Your task to perform on an android device: Go to Yahoo.com Image 0: 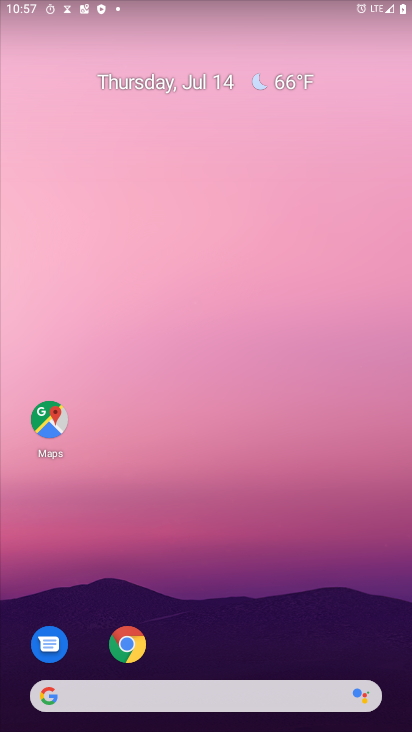
Step 0: drag from (260, 681) to (147, 118)
Your task to perform on an android device: Go to Yahoo.com Image 1: 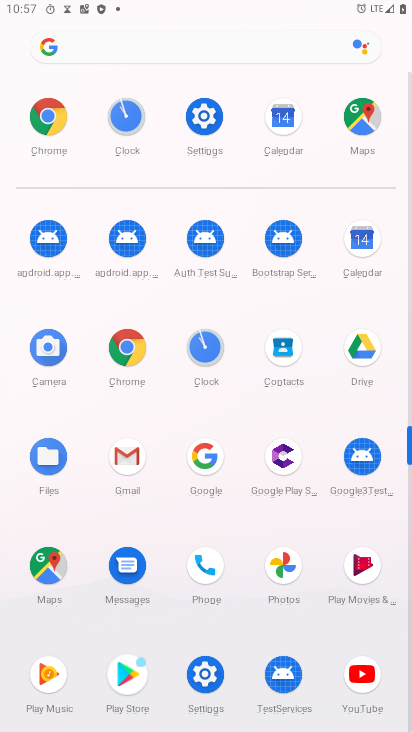
Step 1: click (46, 111)
Your task to perform on an android device: Go to Yahoo.com Image 2: 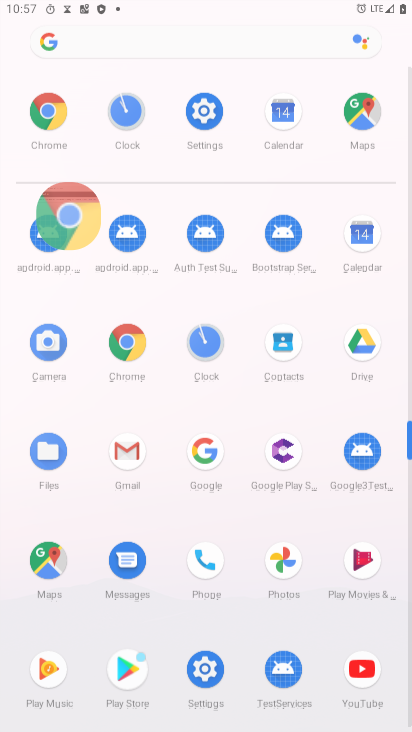
Step 2: click (45, 110)
Your task to perform on an android device: Go to Yahoo.com Image 3: 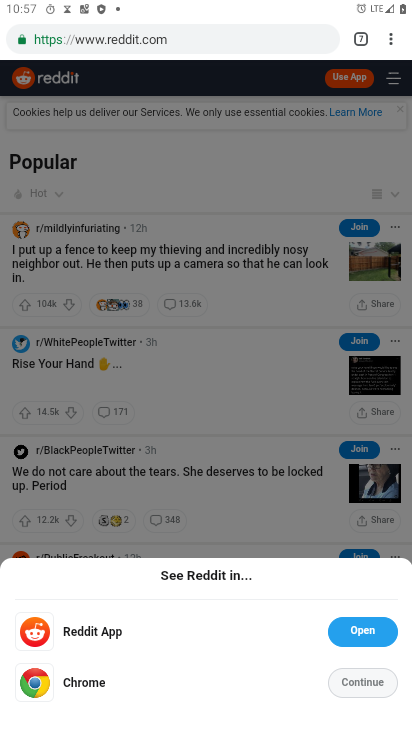
Step 3: press back button
Your task to perform on an android device: Go to Yahoo.com Image 4: 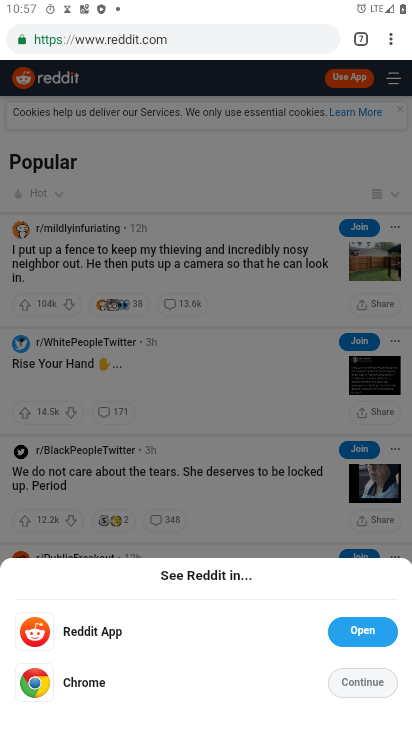
Step 4: press back button
Your task to perform on an android device: Go to Yahoo.com Image 5: 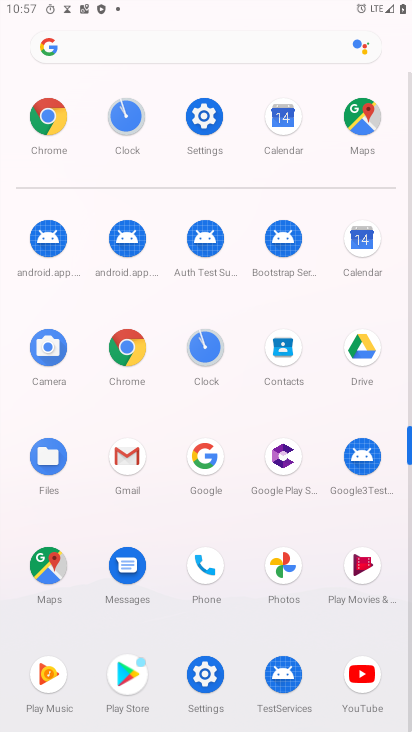
Step 5: click (49, 134)
Your task to perform on an android device: Go to Yahoo.com Image 6: 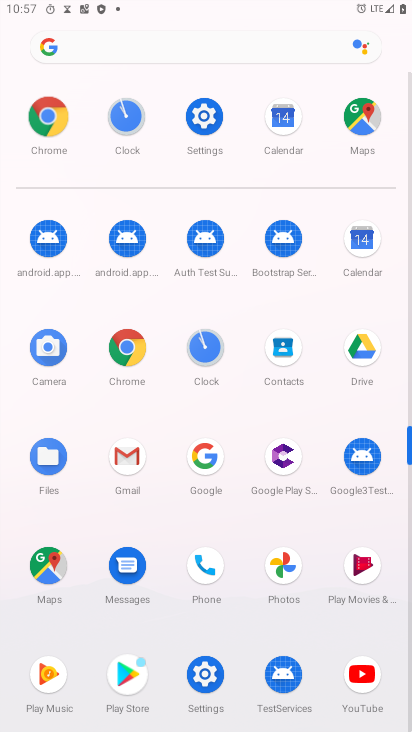
Step 6: click (52, 131)
Your task to perform on an android device: Go to Yahoo.com Image 7: 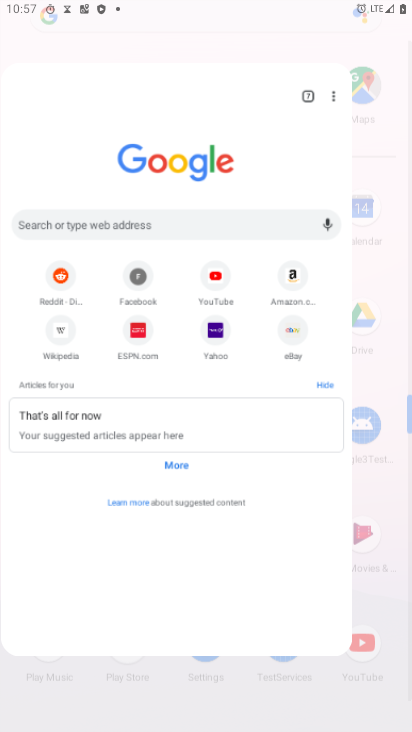
Step 7: click (52, 131)
Your task to perform on an android device: Go to Yahoo.com Image 8: 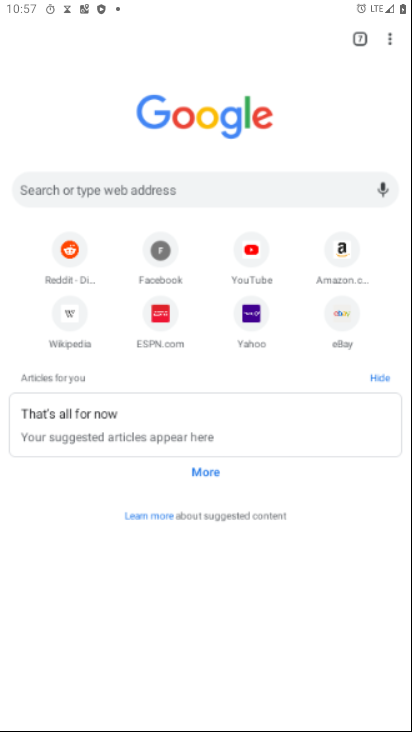
Step 8: click (52, 131)
Your task to perform on an android device: Go to Yahoo.com Image 9: 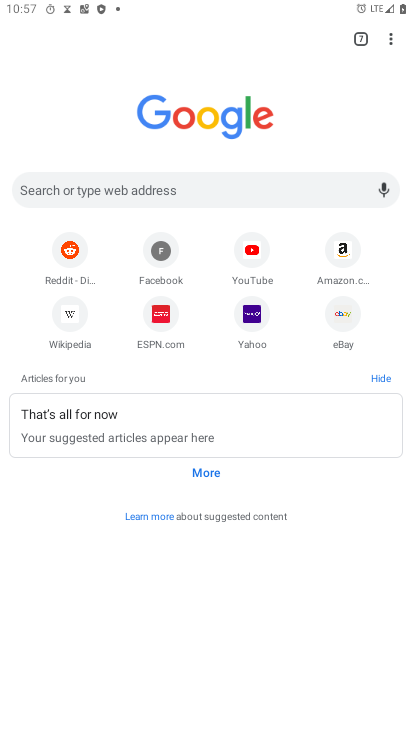
Step 9: click (248, 309)
Your task to perform on an android device: Go to Yahoo.com Image 10: 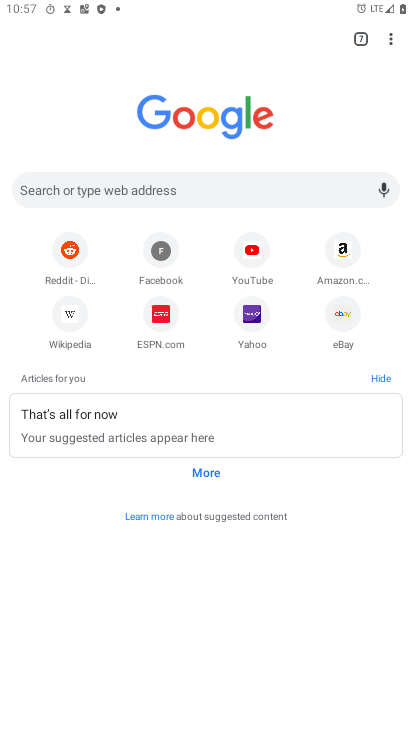
Step 10: click (248, 309)
Your task to perform on an android device: Go to Yahoo.com Image 11: 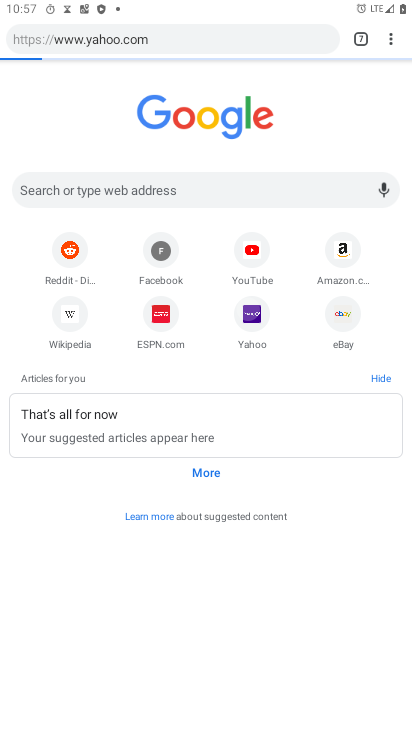
Step 11: click (248, 309)
Your task to perform on an android device: Go to Yahoo.com Image 12: 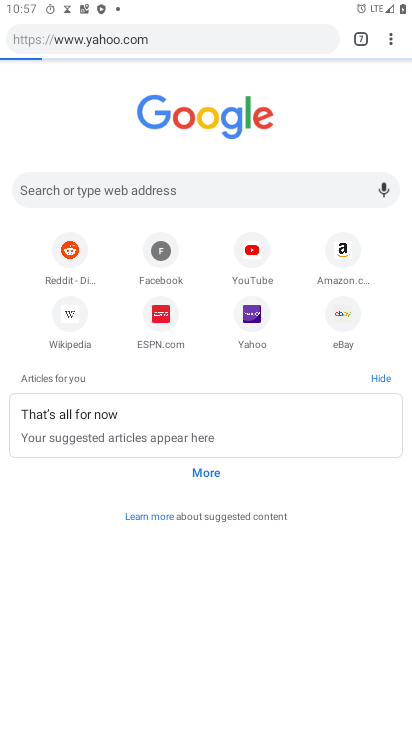
Step 12: click (248, 309)
Your task to perform on an android device: Go to Yahoo.com Image 13: 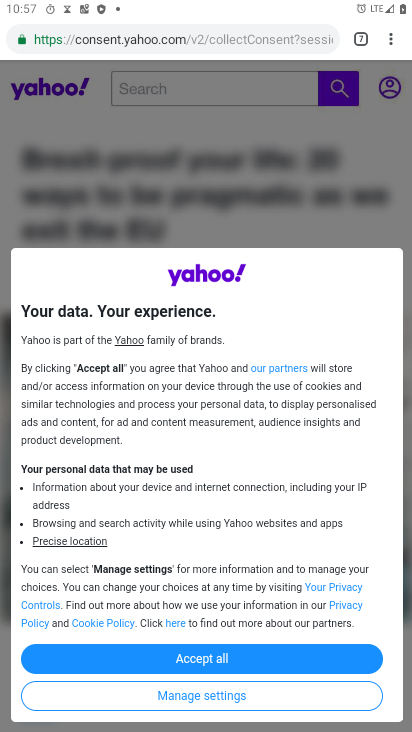
Step 13: task complete